Your task to perform on an android device: Go to network settings Image 0: 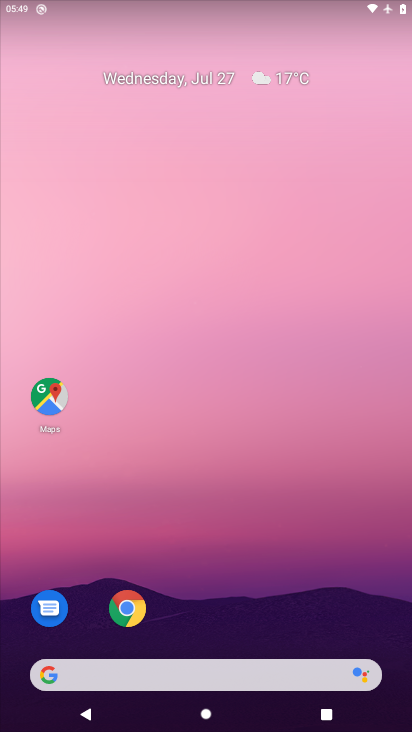
Step 0: press home button
Your task to perform on an android device: Go to network settings Image 1: 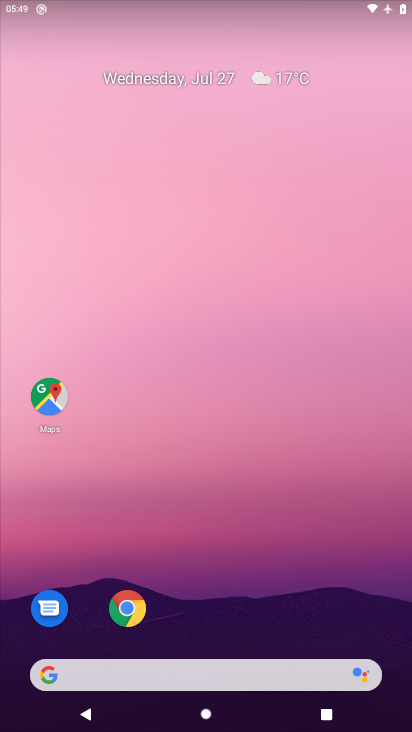
Step 1: drag from (254, 629) to (271, 169)
Your task to perform on an android device: Go to network settings Image 2: 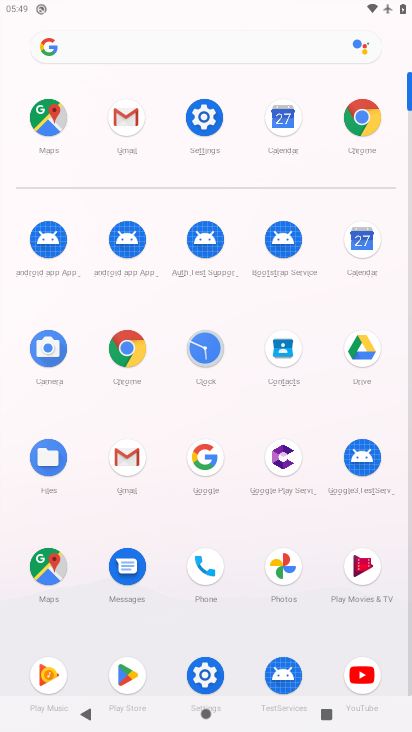
Step 2: click (205, 107)
Your task to perform on an android device: Go to network settings Image 3: 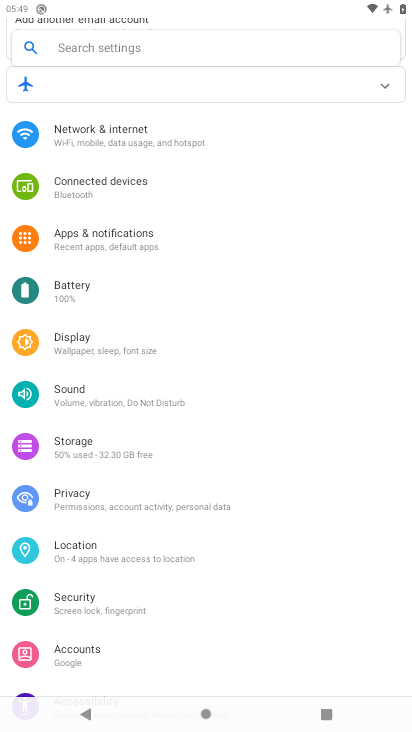
Step 3: click (117, 136)
Your task to perform on an android device: Go to network settings Image 4: 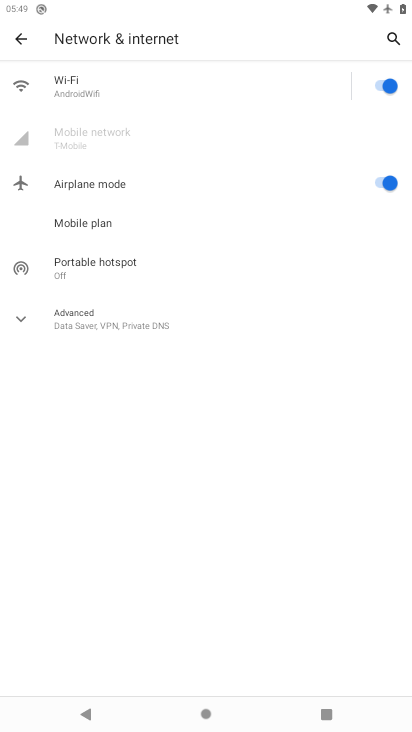
Step 4: task complete